Your task to perform on an android device: open app "Adobe Express: Graphic Design" Image 0: 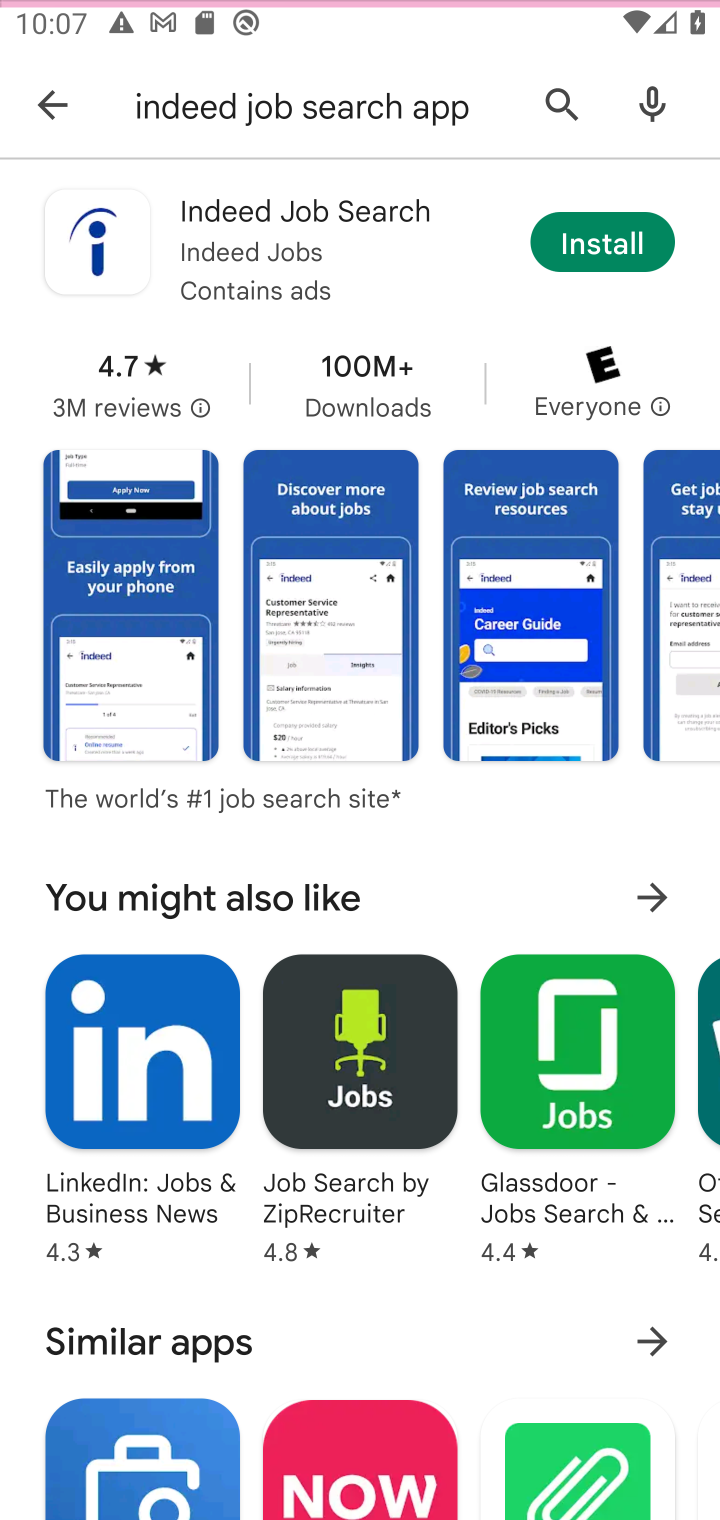
Step 0: press home button
Your task to perform on an android device: open app "Adobe Express: Graphic Design" Image 1: 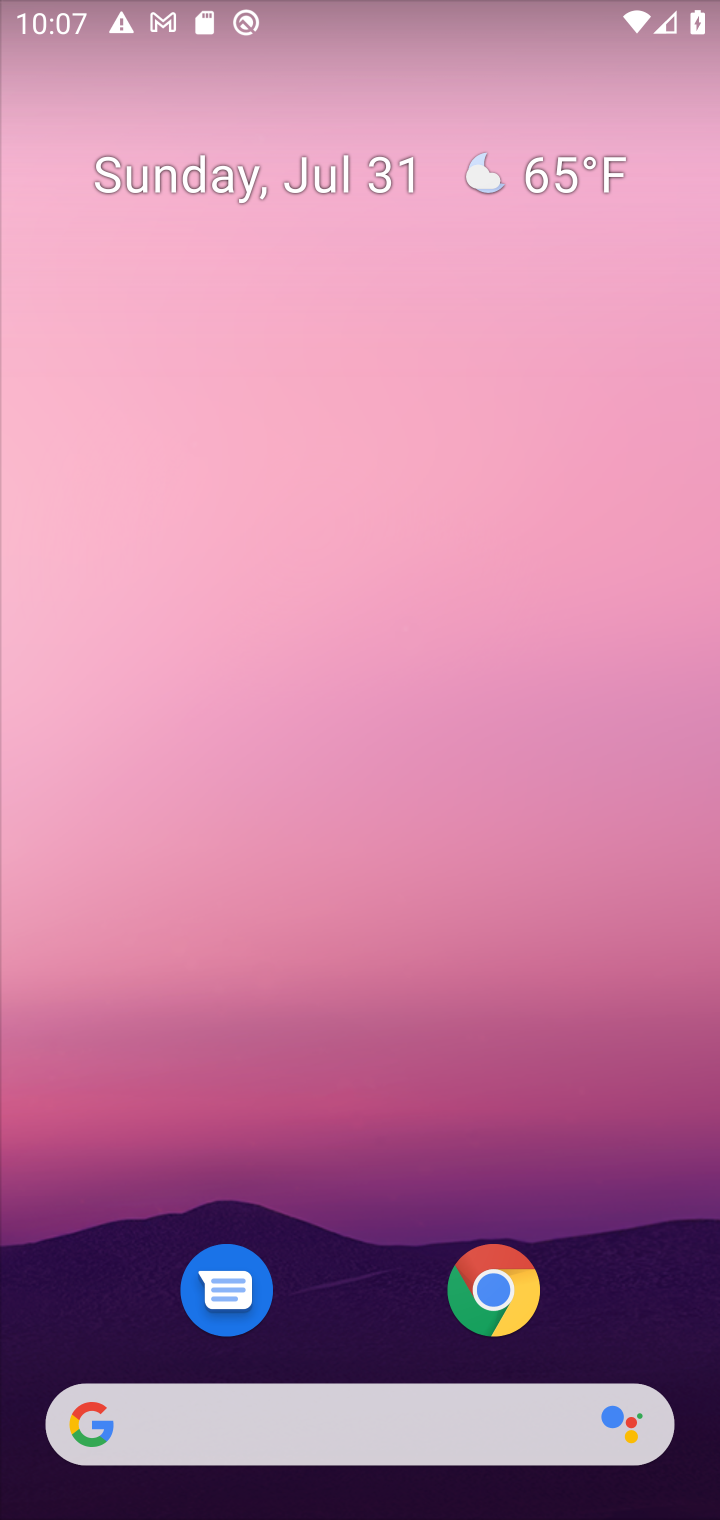
Step 1: press home button
Your task to perform on an android device: open app "Adobe Express: Graphic Design" Image 2: 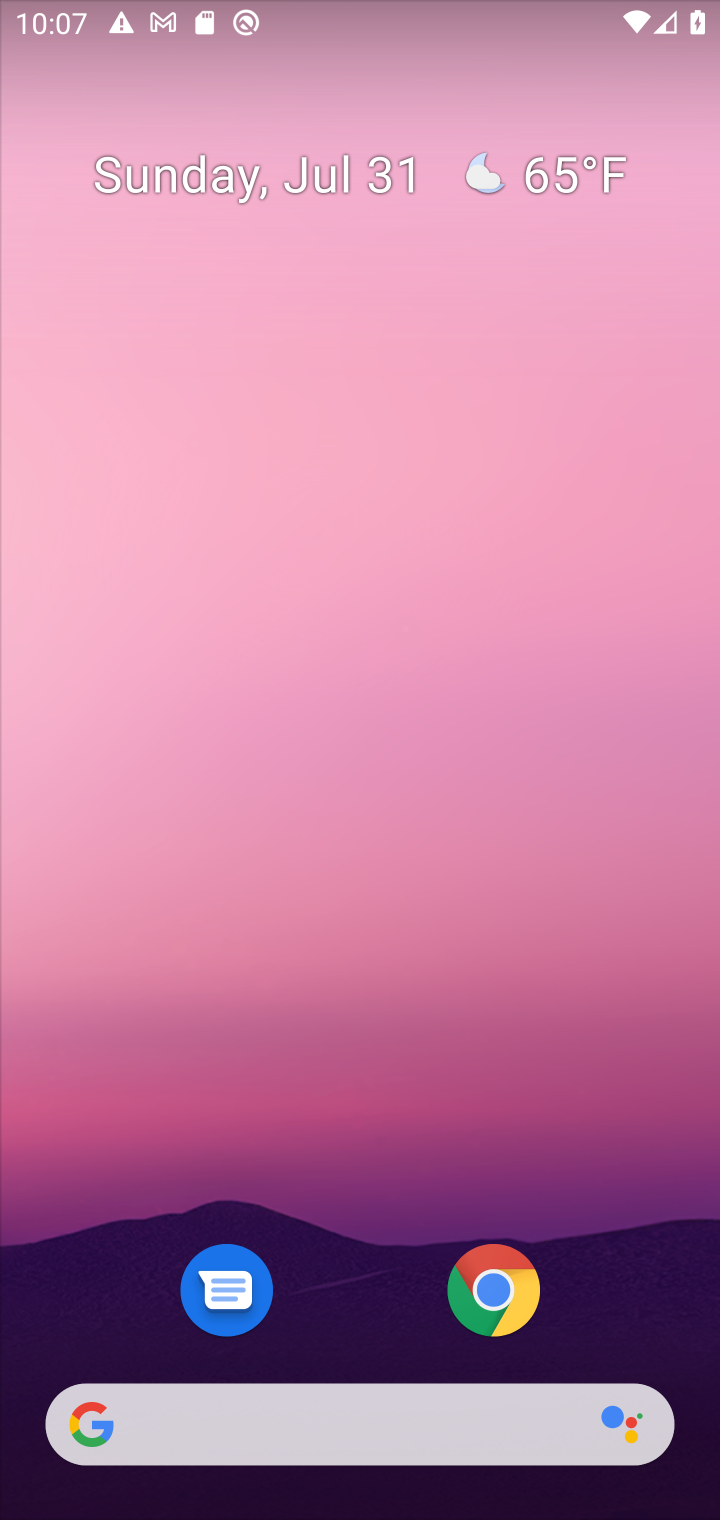
Step 2: drag from (622, 1290) to (600, 150)
Your task to perform on an android device: open app "Adobe Express: Graphic Design" Image 3: 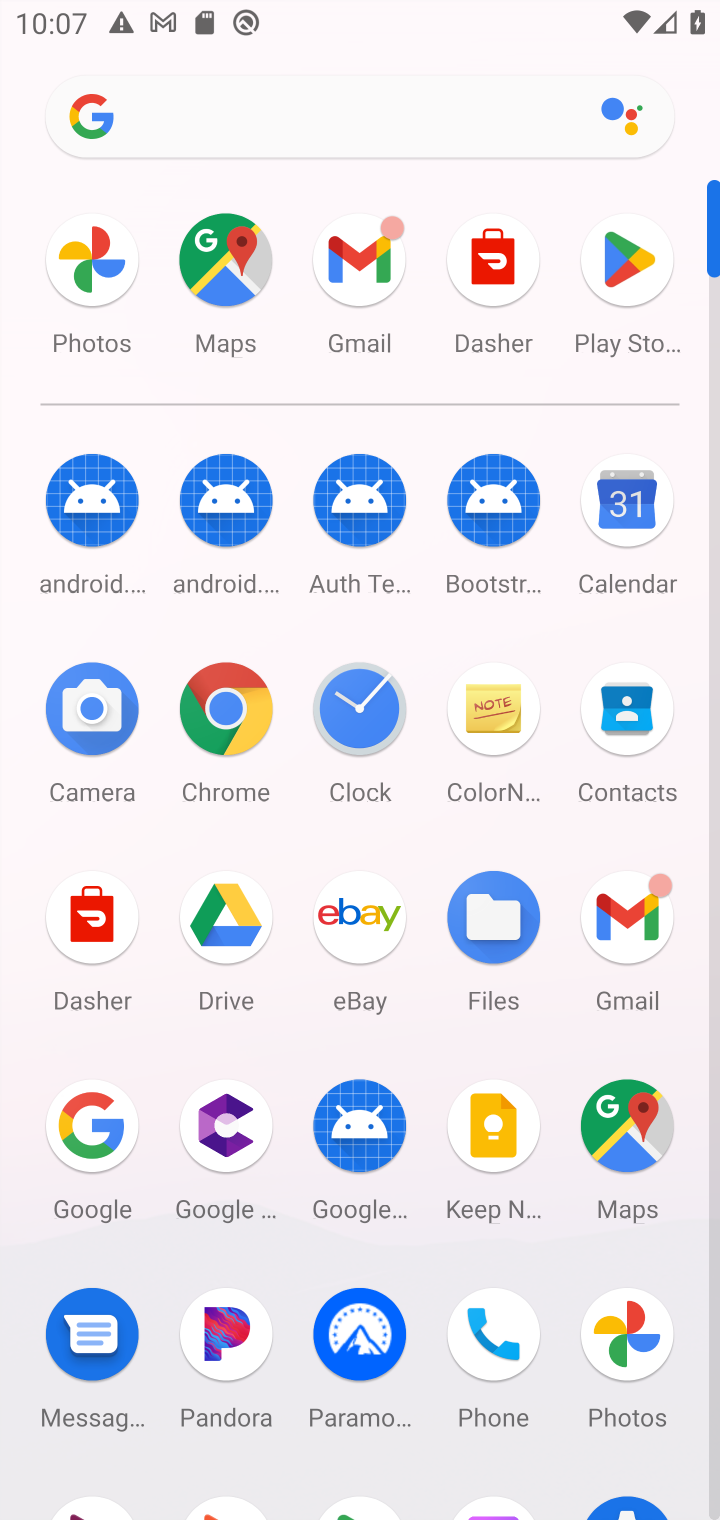
Step 3: click (631, 266)
Your task to perform on an android device: open app "Adobe Express: Graphic Design" Image 4: 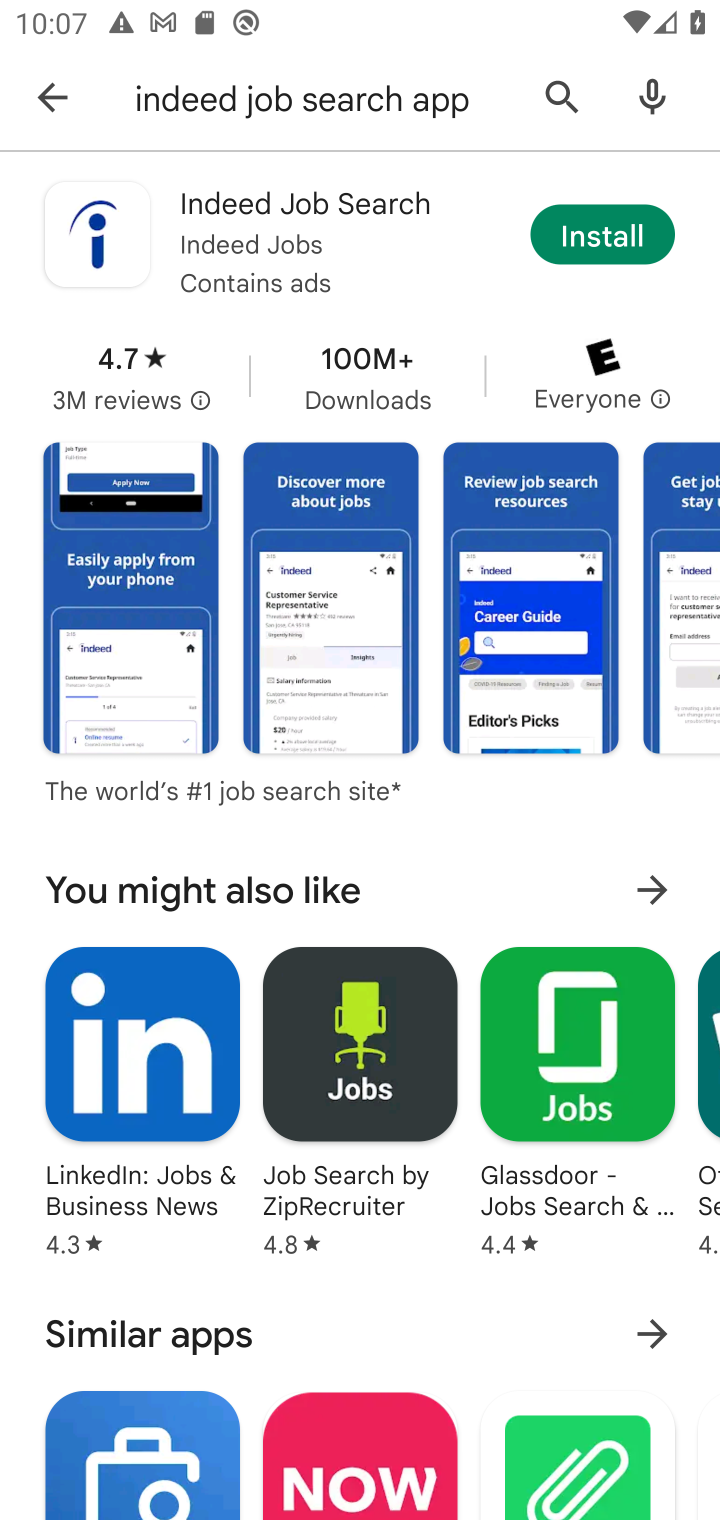
Step 4: click (549, 79)
Your task to perform on an android device: open app "Adobe Express: Graphic Design" Image 5: 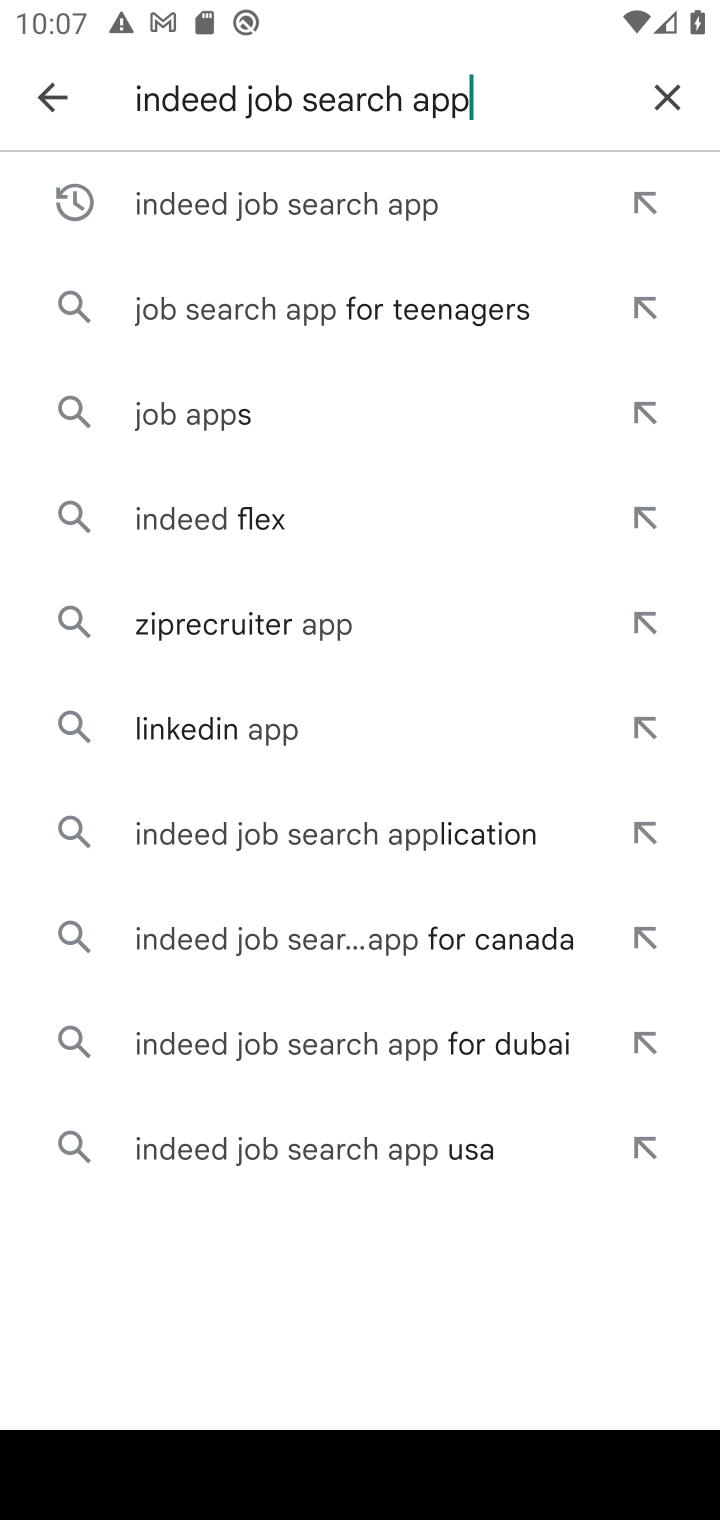
Step 5: click (661, 84)
Your task to perform on an android device: open app "Adobe Express: Graphic Design" Image 6: 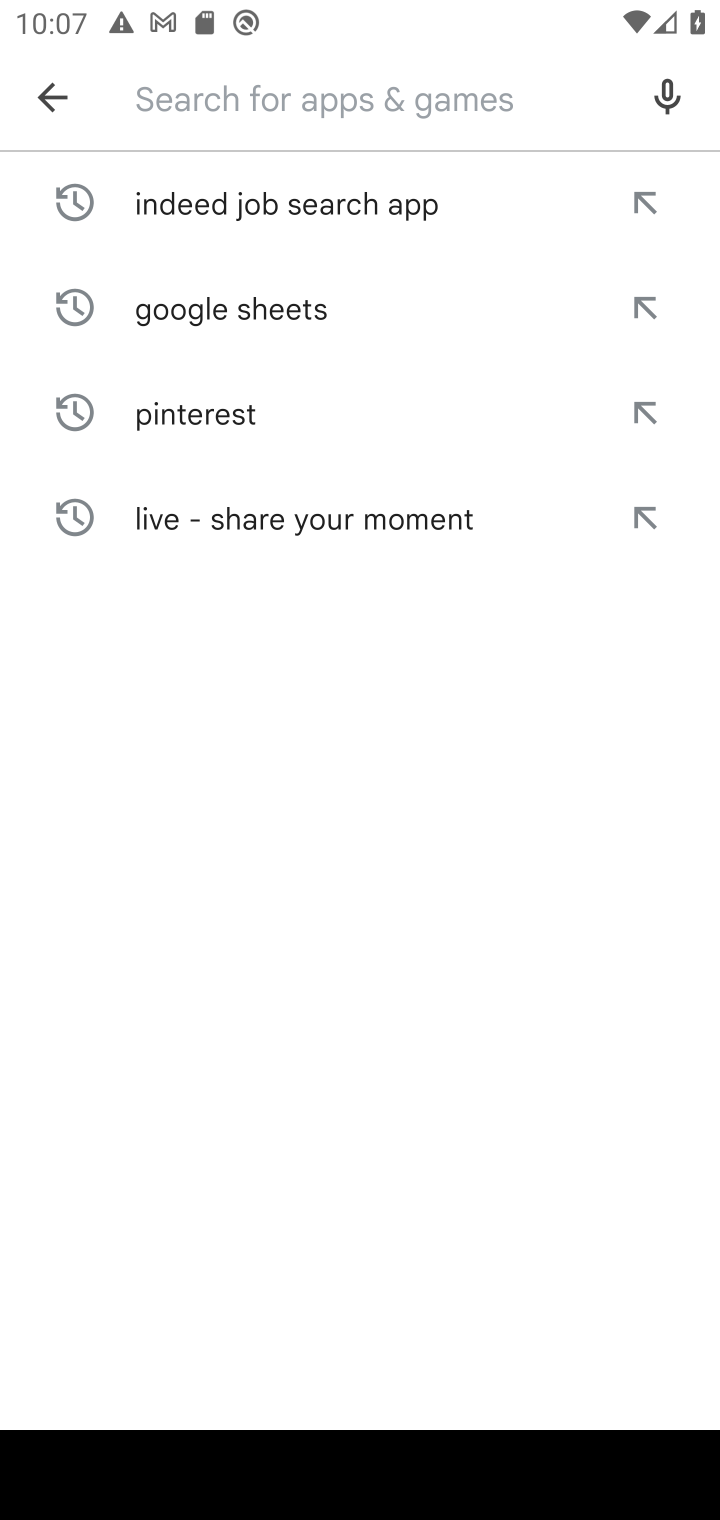
Step 6: type "Adobe Express: Graphic Design"
Your task to perform on an android device: open app "Adobe Express: Graphic Design" Image 7: 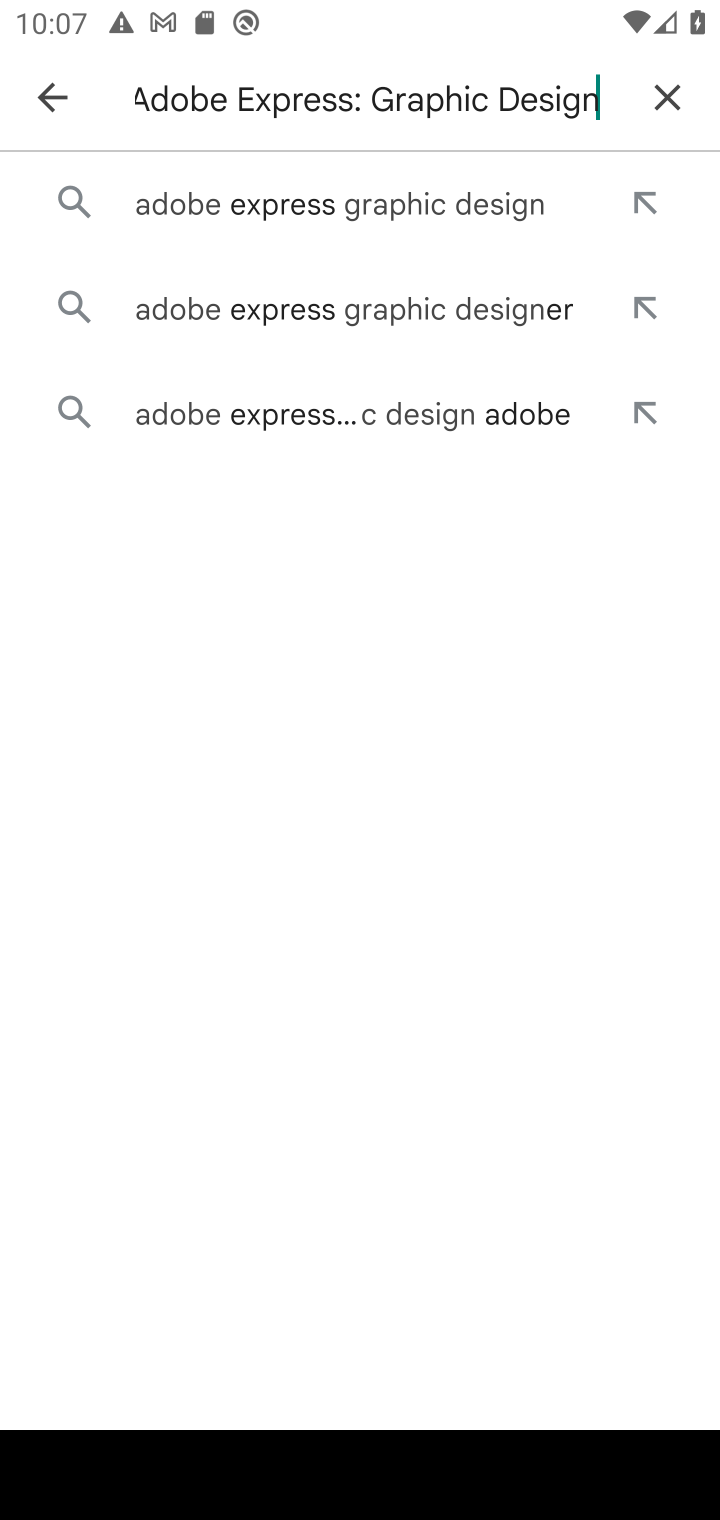
Step 7: click (451, 203)
Your task to perform on an android device: open app "Adobe Express: Graphic Design" Image 8: 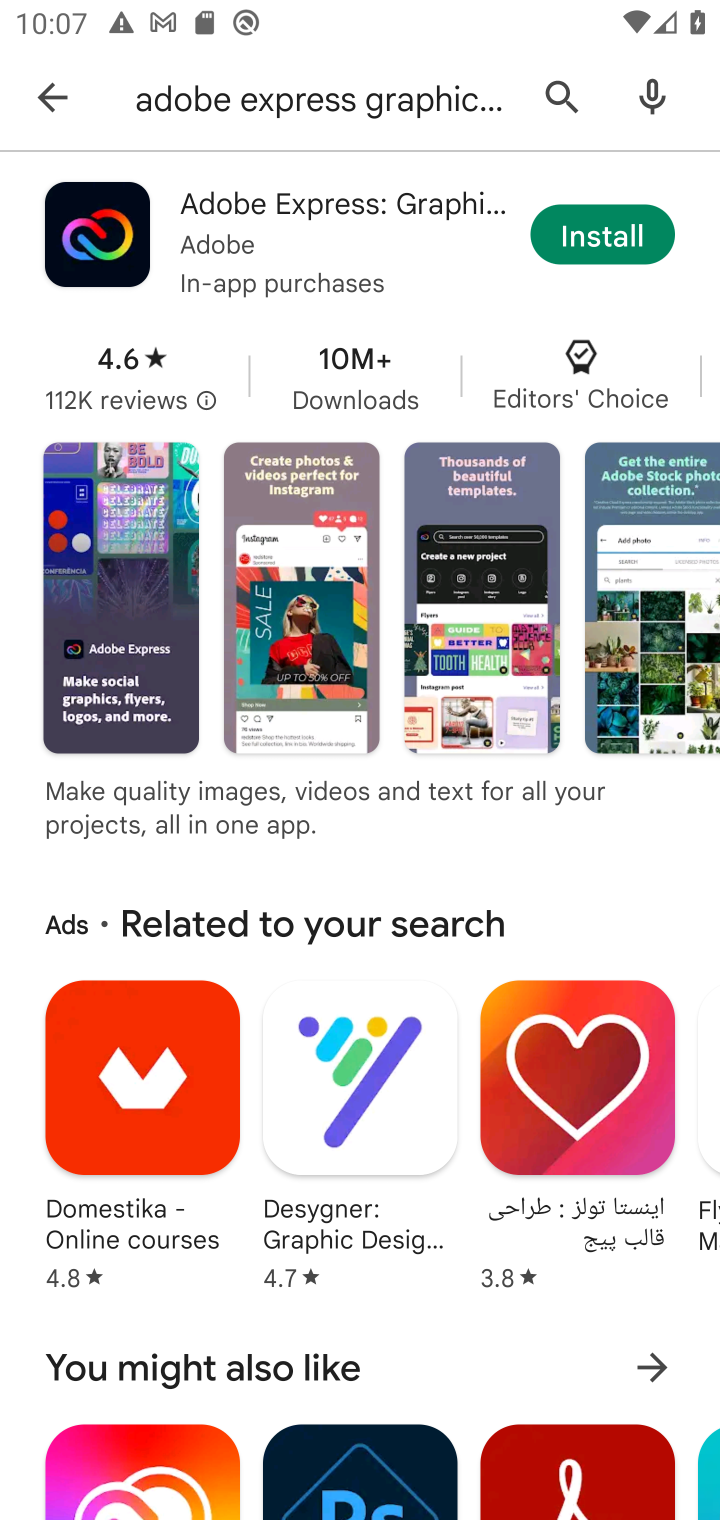
Step 8: task complete